Your task to perform on an android device: Open notification settings Image 0: 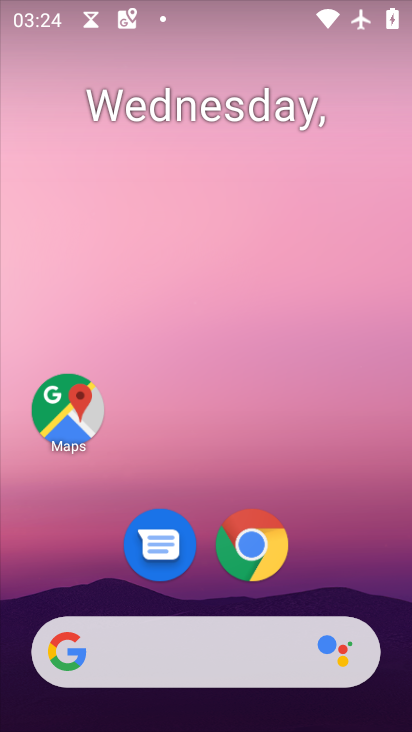
Step 0: press home button
Your task to perform on an android device: Open notification settings Image 1: 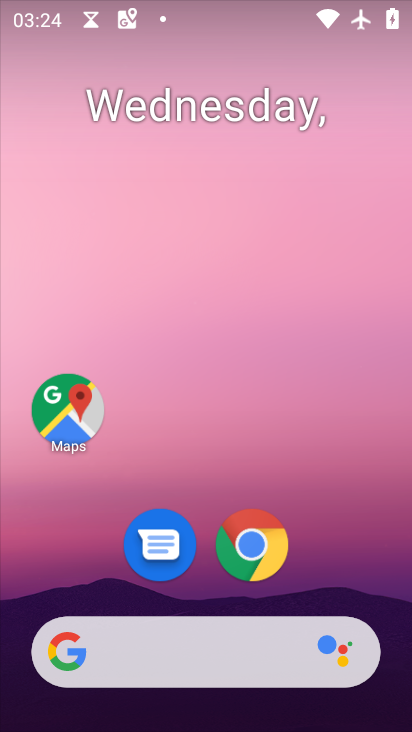
Step 1: drag from (203, 648) to (356, 99)
Your task to perform on an android device: Open notification settings Image 2: 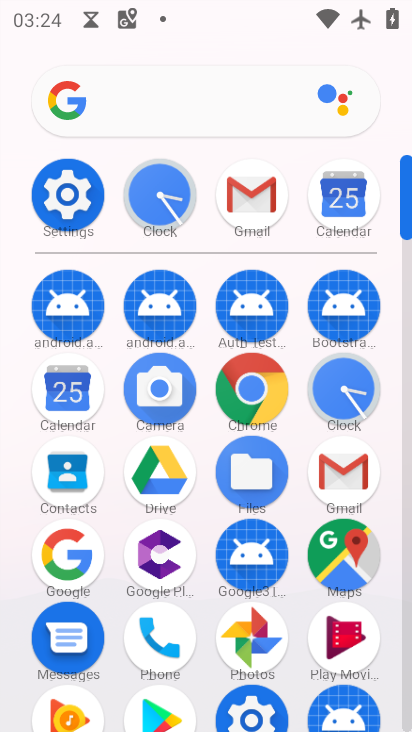
Step 2: click (73, 203)
Your task to perform on an android device: Open notification settings Image 3: 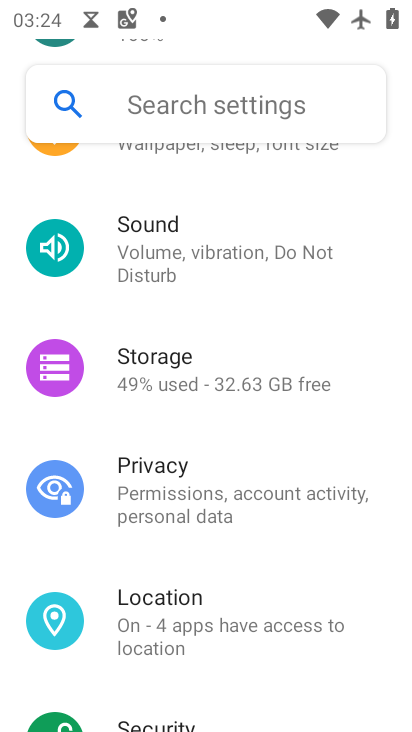
Step 3: drag from (311, 195) to (274, 568)
Your task to perform on an android device: Open notification settings Image 4: 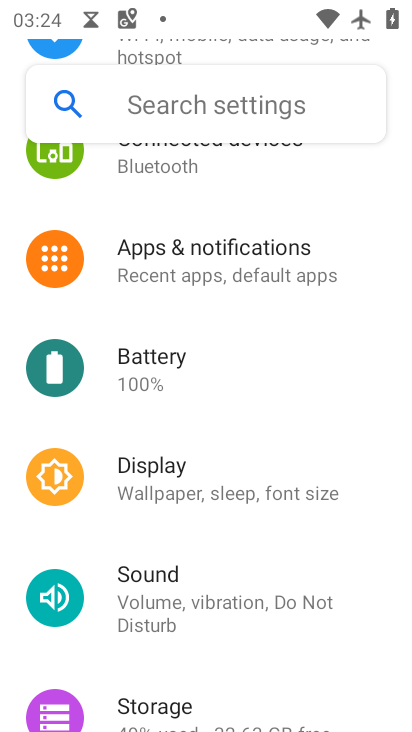
Step 4: click (245, 260)
Your task to perform on an android device: Open notification settings Image 5: 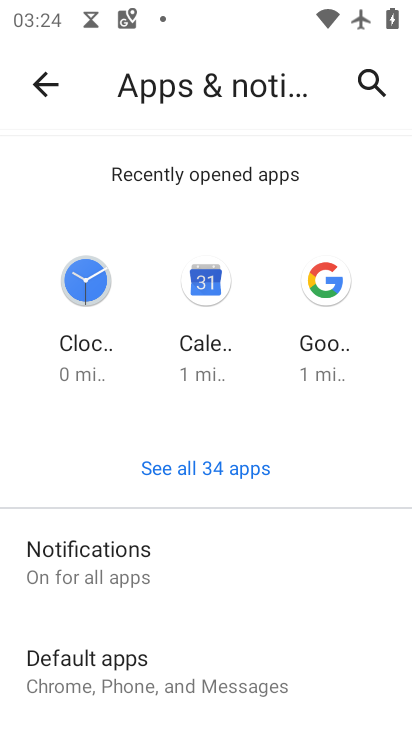
Step 5: click (113, 563)
Your task to perform on an android device: Open notification settings Image 6: 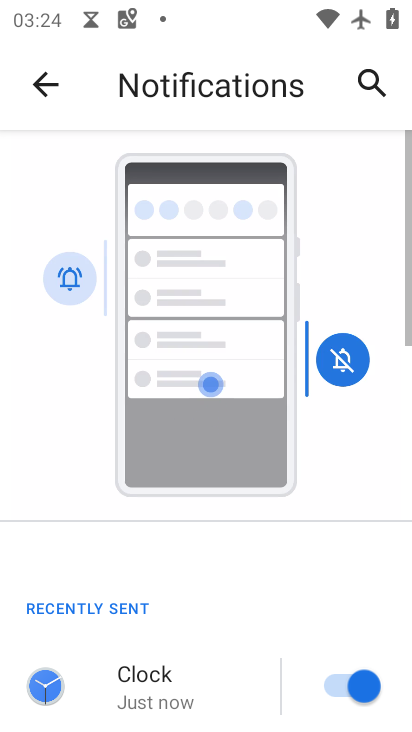
Step 6: task complete